Your task to perform on an android device: Go to location settings Image 0: 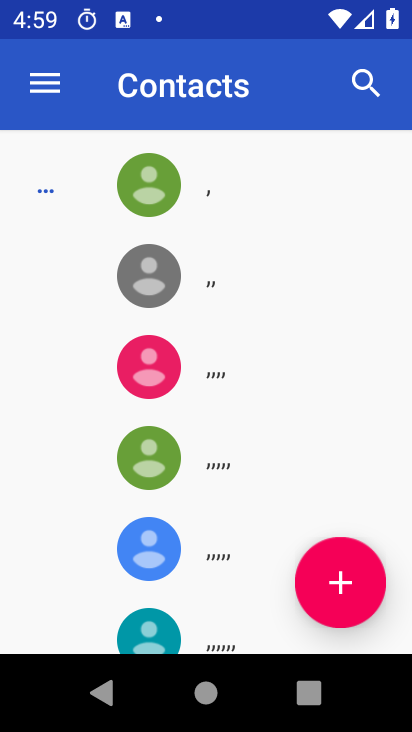
Step 0: press home button
Your task to perform on an android device: Go to location settings Image 1: 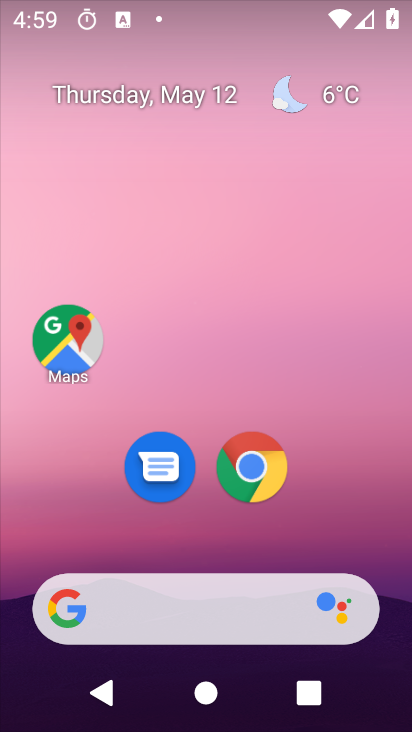
Step 1: drag from (268, 584) to (255, 91)
Your task to perform on an android device: Go to location settings Image 2: 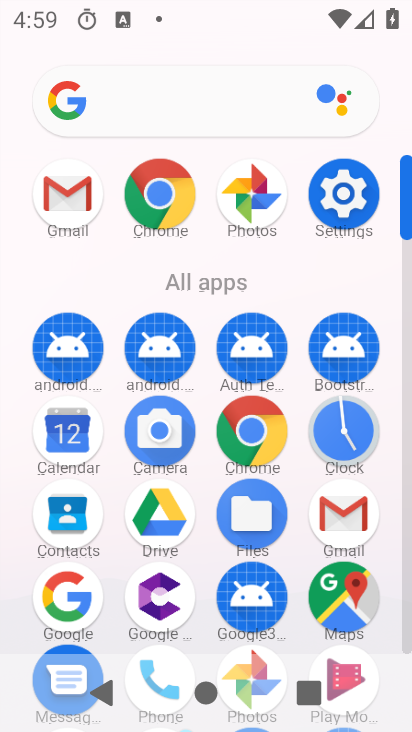
Step 2: click (357, 195)
Your task to perform on an android device: Go to location settings Image 3: 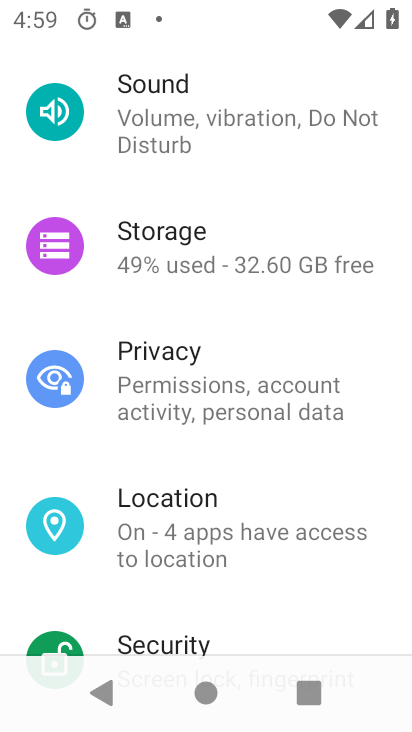
Step 3: click (244, 536)
Your task to perform on an android device: Go to location settings Image 4: 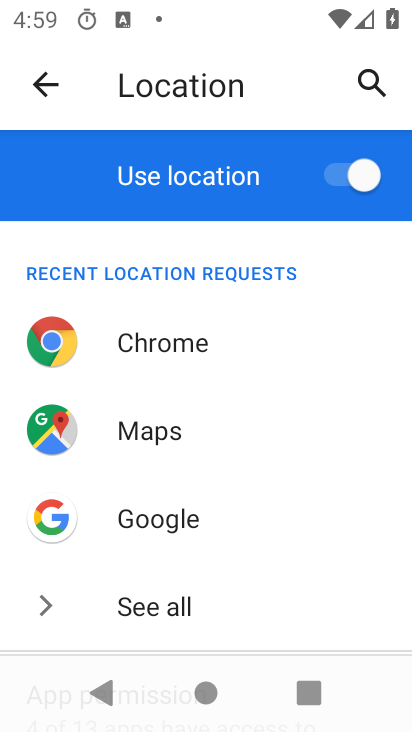
Step 4: task complete